Your task to perform on an android device: Is it going to rain tomorrow? Image 0: 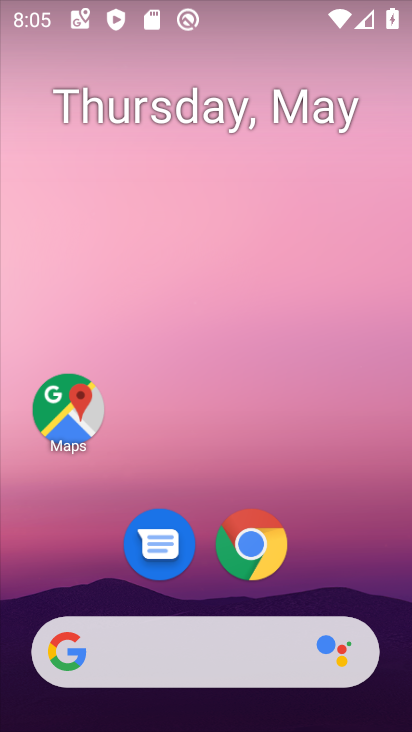
Step 0: press home button
Your task to perform on an android device: Is it going to rain tomorrow? Image 1: 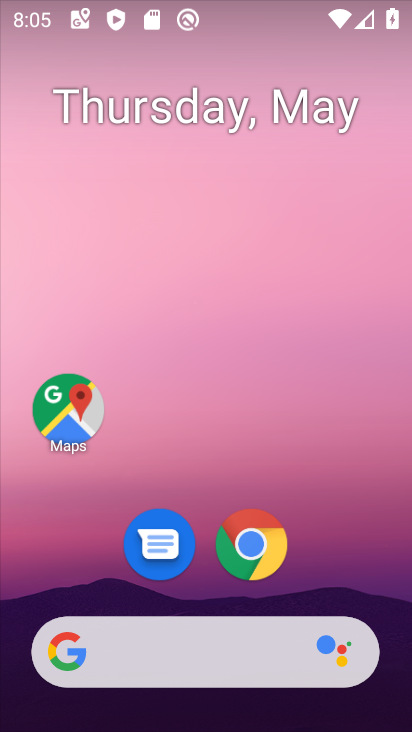
Step 1: click (252, 531)
Your task to perform on an android device: Is it going to rain tomorrow? Image 2: 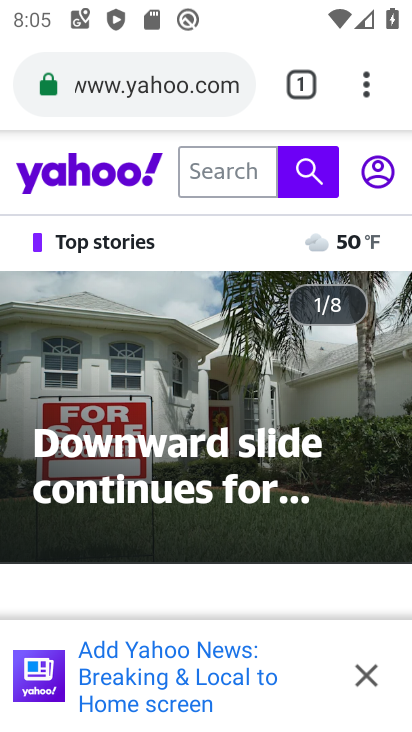
Step 2: click (156, 82)
Your task to perform on an android device: Is it going to rain tomorrow? Image 3: 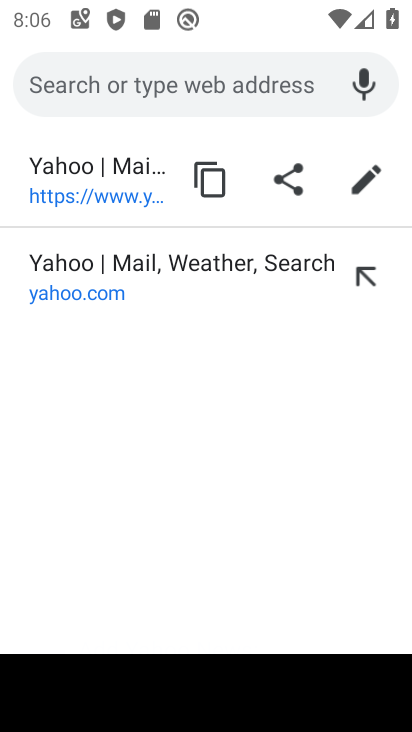
Step 3: type "Is it going to rain tomorrow?"
Your task to perform on an android device: Is it going to rain tomorrow? Image 4: 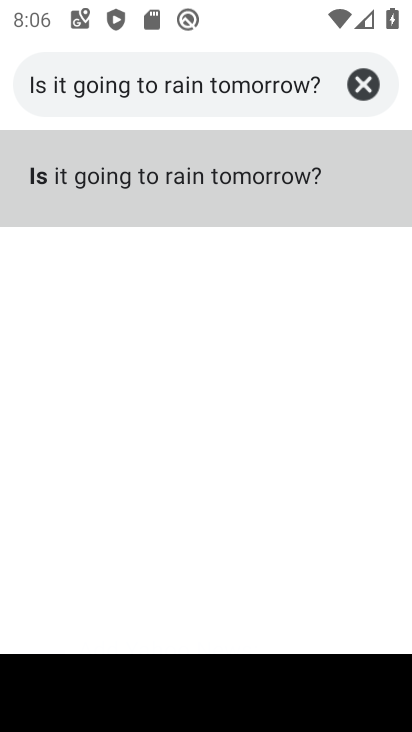
Step 4: click (137, 174)
Your task to perform on an android device: Is it going to rain tomorrow? Image 5: 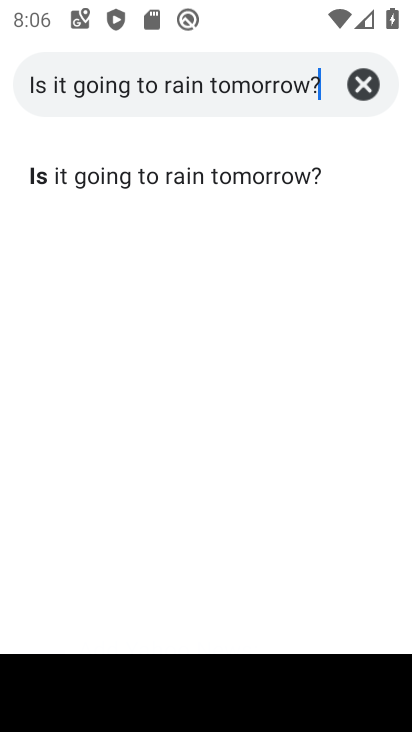
Step 5: click (276, 174)
Your task to perform on an android device: Is it going to rain tomorrow? Image 6: 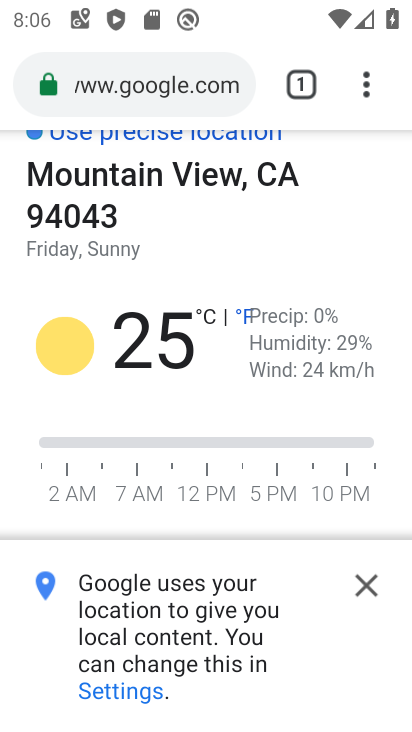
Step 6: task complete